Your task to perform on an android device: Go to Maps Image 0: 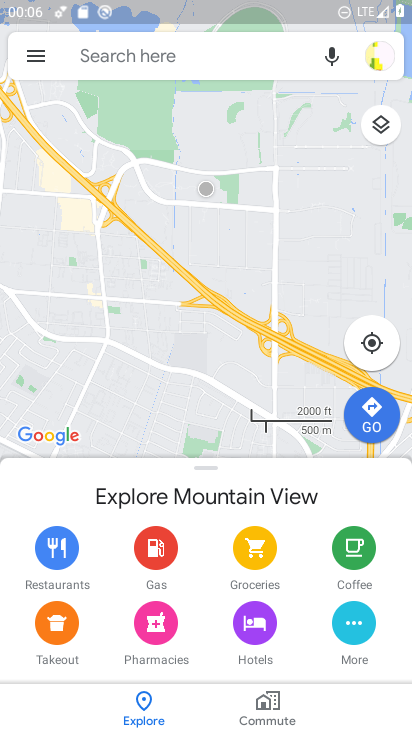
Step 0: press home button
Your task to perform on an android device: Go to Maps Image 1: 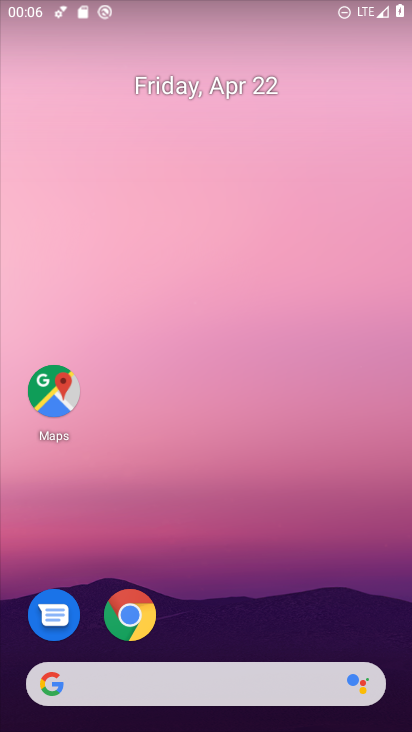
Step 1: click (56, 388)
Your task to perform on an android device: Go to Maps Image 2: 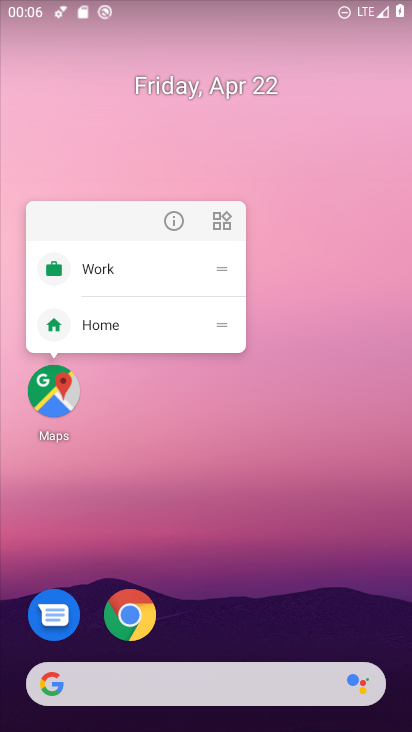
Step 2: click (230, 475)
Your task to perform on an android device: Go to Maps Image 3: 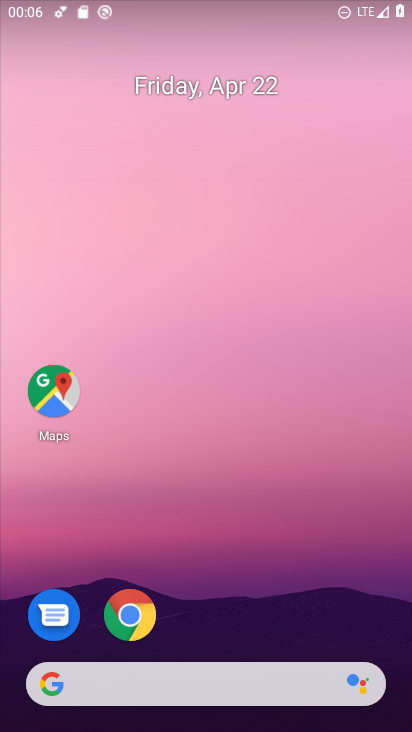
Step 3: click (267, 477)
Your task to perform on an android device: Go to Maps Image 4: 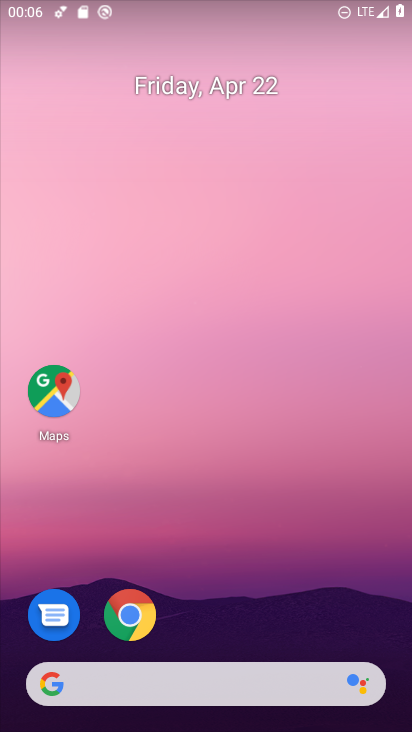
Step 4: drag from (225, 649) to (263, 62)
Your task to perform on an android device: Go to Maps Image 5: 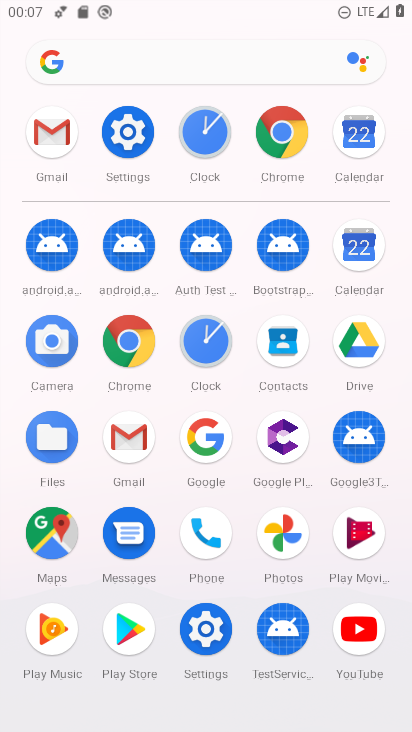
Step 5: click (52, 528)
Your task to perform on an android device: Go to Maps Image 6: 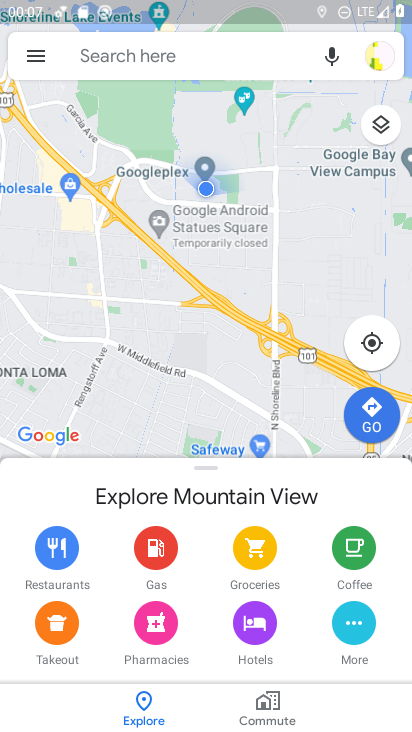
Step 6: task complete